Your task to perform on an android device: empty trash in the gmail app Image 0: 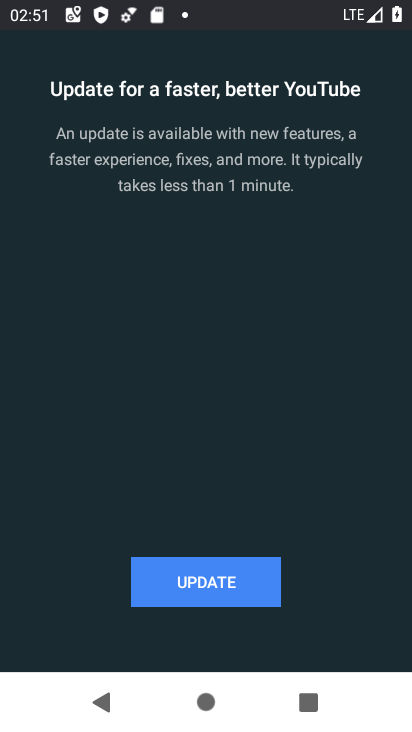
Step 0: press back button
Your task to perform on an android device: empty trash in the gmail app Image 1: 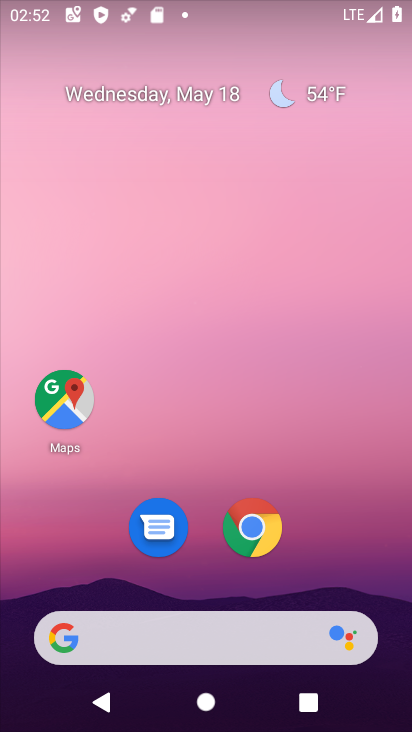
Step 1: drag from (187, 585) to (354, 39)
Your task to perform on an android device: empty trash in the gmail app Image 2: 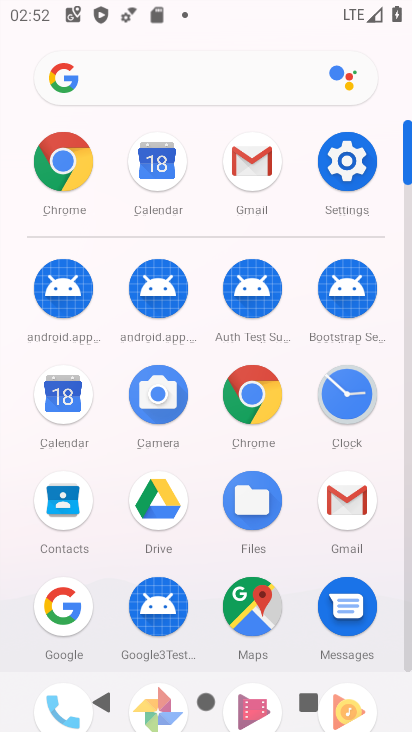
Step 2: click (360, 505)
Your task to perform on an android device: empty trash in the gmail app Image 3: 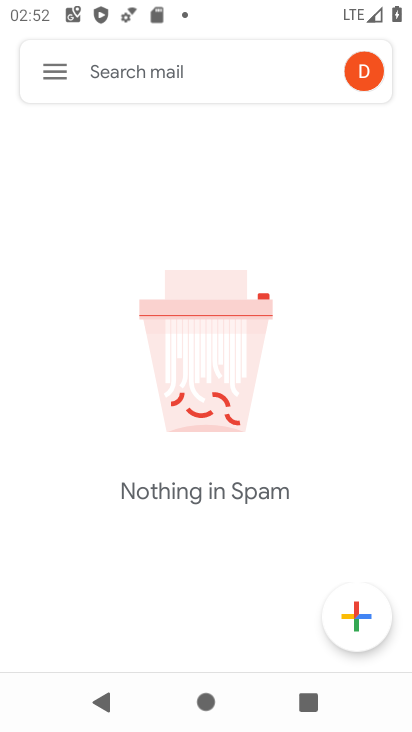
Step 3: click (40, 60)
Your task to perform on an android device: empty trash in the gmail app Image 4: 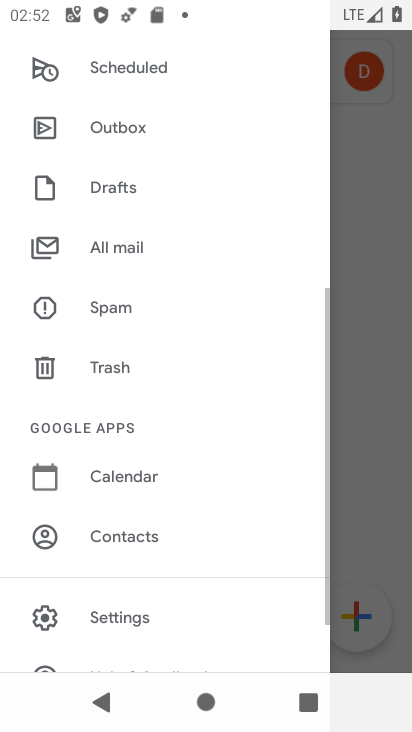
Step 4: click (102, 361)
Your task to perform on an android device: empty trash in the gmail app Image 5: 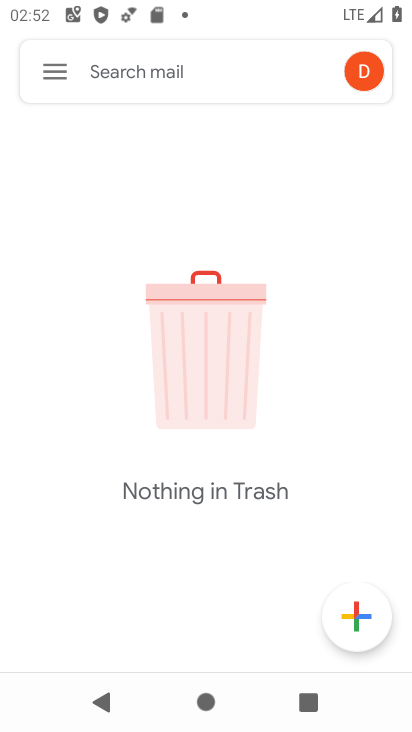
Step 5: task complete